Your task to perform on an android device: allow notifications from all sites in the chrome app Image 0: 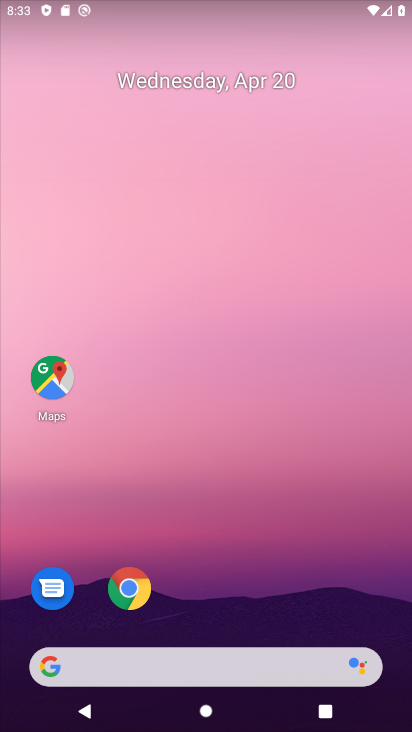
Step 0: click (136, 595)
Your task to perform on an android device: allow notifications from all sites in the chrome app Image 1: 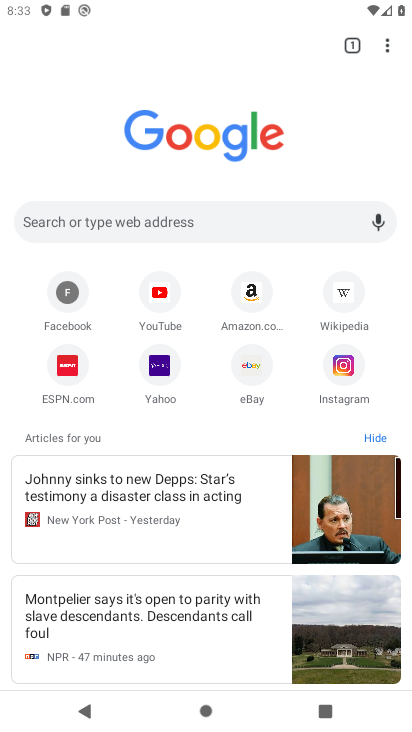
Step 1: drag from (390, 46) to (273, 383)
Your task to perform on an android device: allow notifications from all sites in the chrome app Image 2: 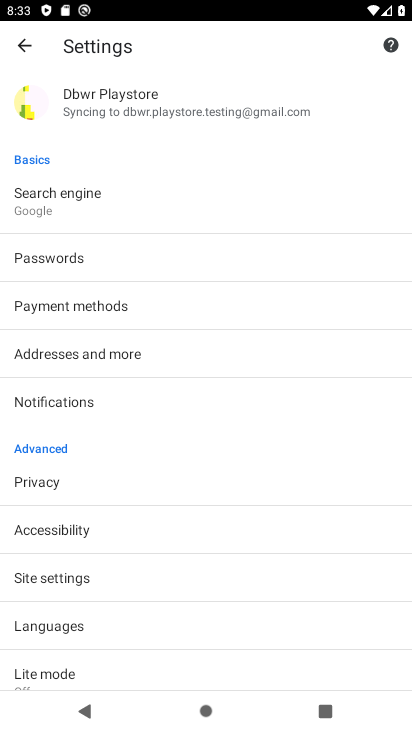
Step 2: click (53, 581)
Your task to perform on an android device: allow notifications from all sites in the chrome app Image 3: 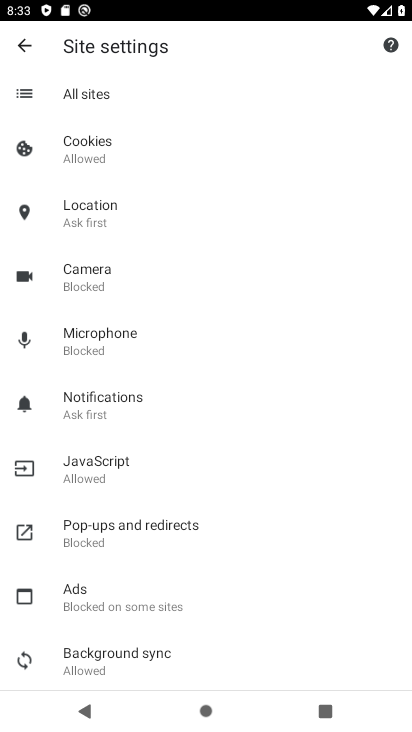
Step 3: drag from (111, 102) to (124, 398)
Your task to perform on an android device: allow notifications from all sites in the chrome app Image 4: 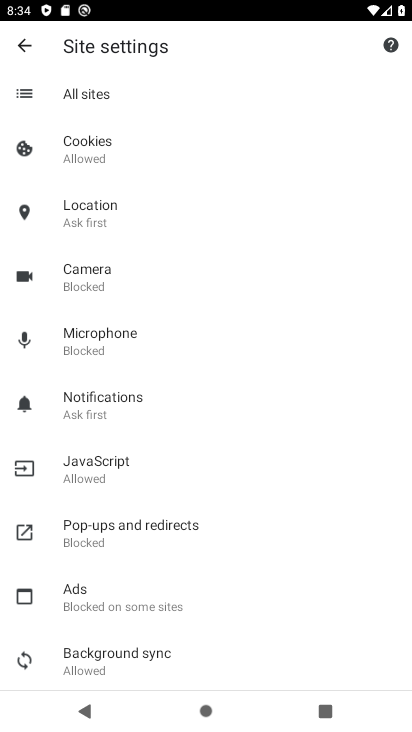
Step 4: click (124, 398)
Your task to perform on an android device: allow notifications from all sites in the chrome app Image 5: 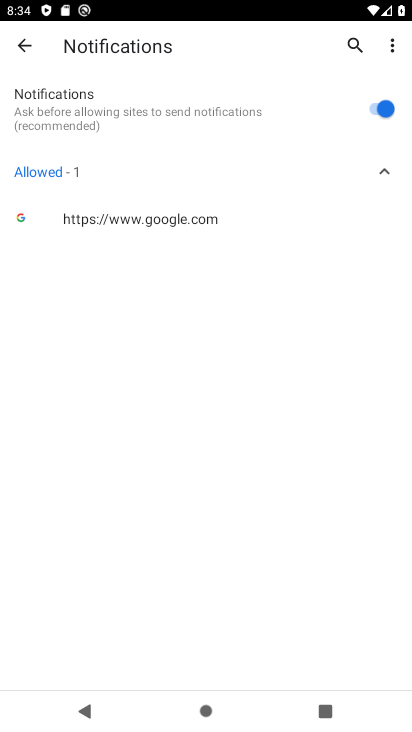
Step 5: task complete